Your task to perform on an android device: search for starred emails in the gmail app Image 0: 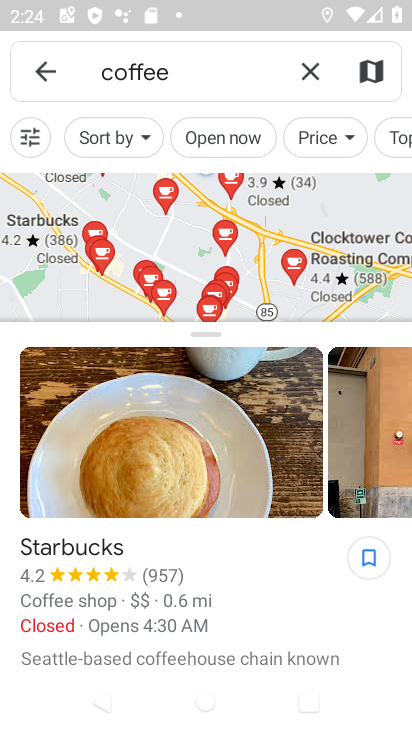
Step 0: press home button
Your task to perform on an android device: search for starred emails in the gmail app Image 1: 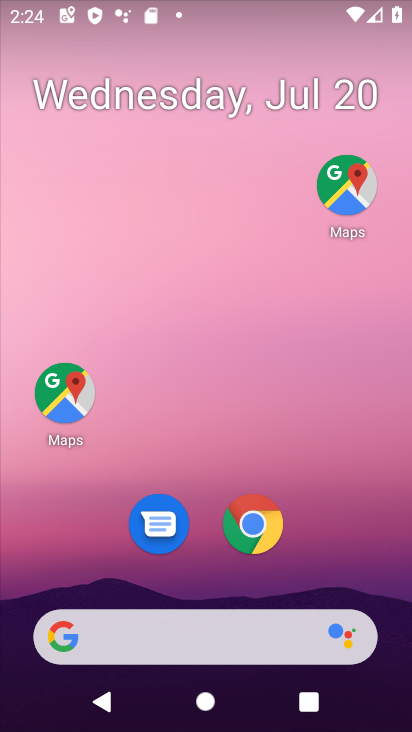
Step 1: drag from (350, 532) to (288, 65)
Your task to perform on an android device: search for starred emails in the gmail app Image 2: 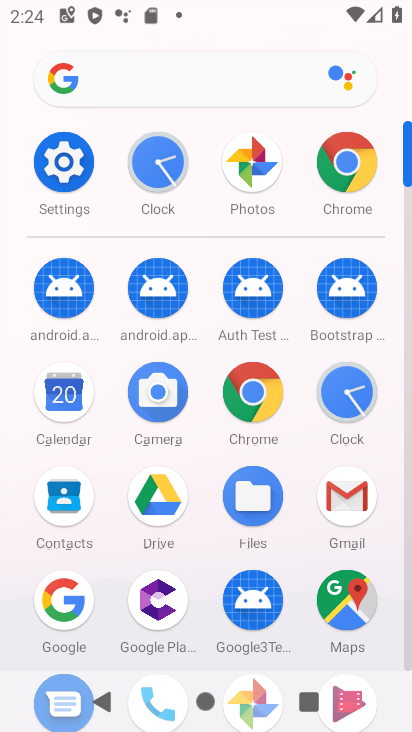
Step 2: click (353, 498)
Your task to perform on an android device: search for starred emails in the gmail app Image 3: 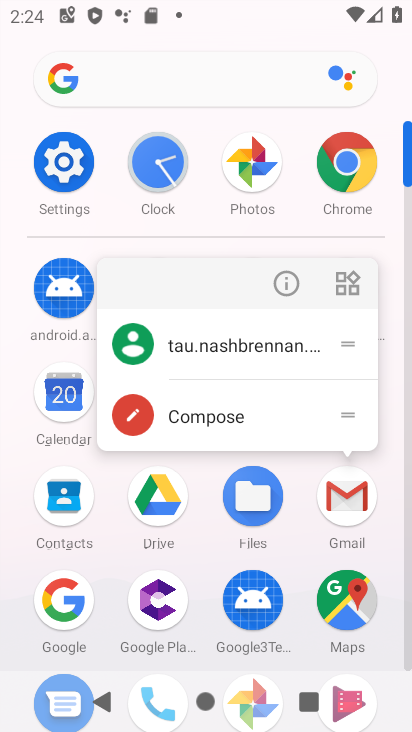
Step 3: click (345, 493)
Your task to perform on an android device: search for starred emails in the gmail app Image 4: 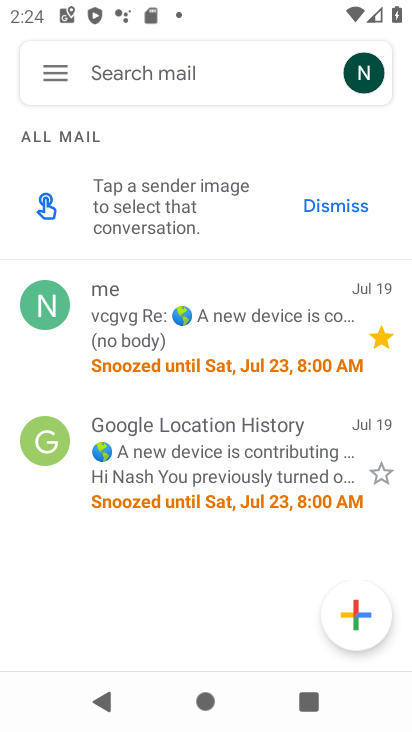
Step 4: click (67, 68)
Your task to perform on an android device: search for starred emails in the gmail app Image 5: 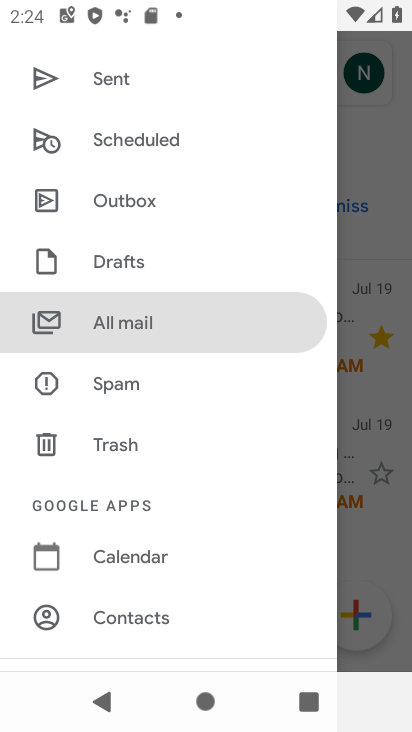
Step 5: drag from (170, 117) to (160, 558)
Your task to perform on an android device: search for starred emails in the gmail app Image 6: 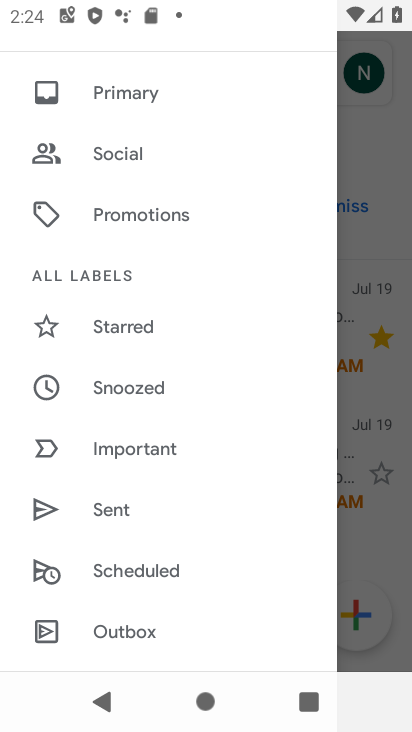
Step 6: click (156, 390)
Your task to perform on an android device: search for starred emails in the gmail app Image 7: 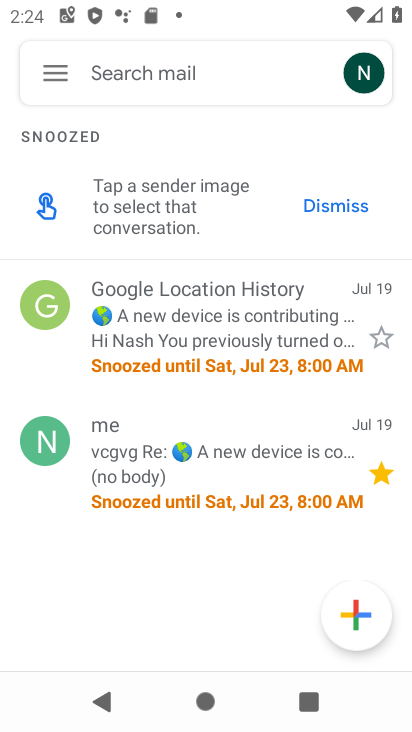
Step 7: click (58, 68)
Your task to perform on an android device: search for starred emails in the gmail app Image 8: 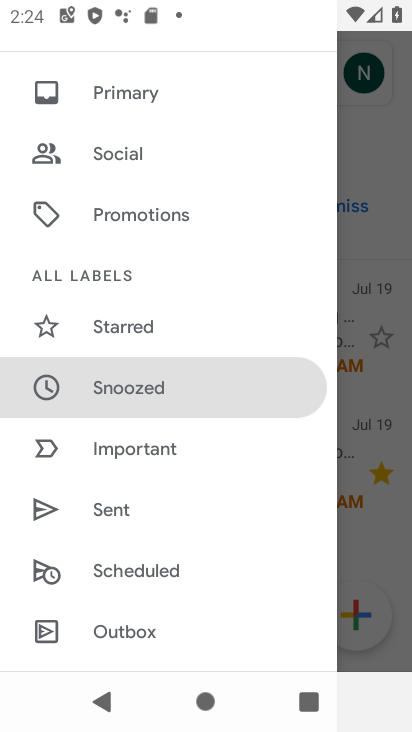
Step 8: click (123, 313)
Your task to perform on an android device: search for starred emails in the gmail app Image 9: 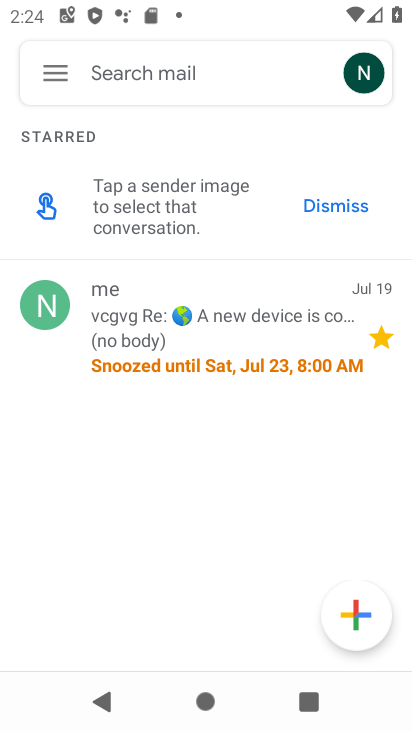
Step 9: task complete